Your task to perform on an android device: open chrome and create a bookmark for the current page Image 0: 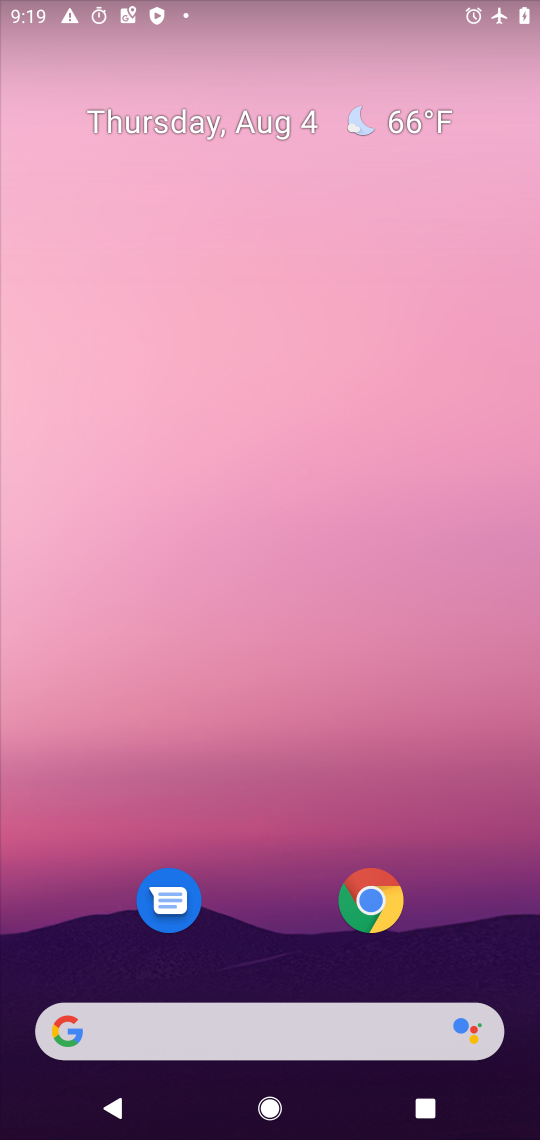
Step 0: click (372, 905)
Your task to perform on an android device: open chrome and create a bookmark for the current page Image 1: 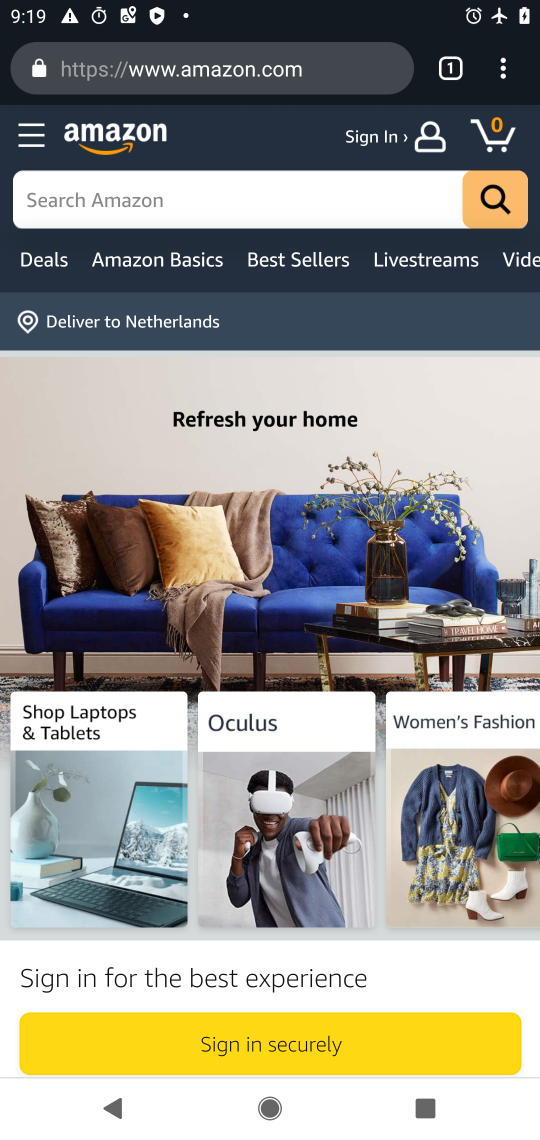
Step 1: click (450, 361)
Your task to perform on an android device: open chrome and create a bookmark for the current page Image 2: 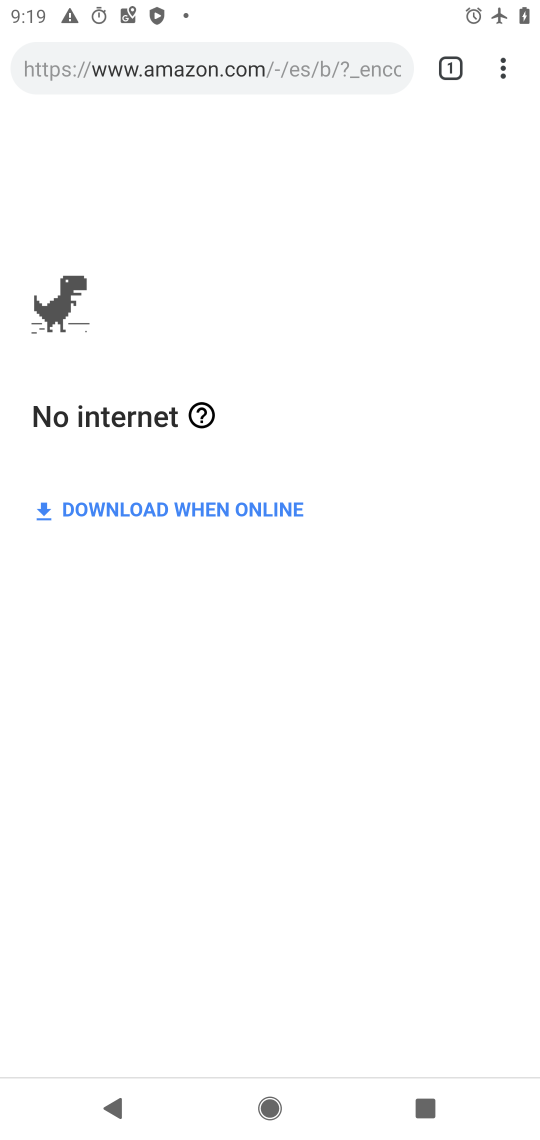
Step 2: task complete